Your task to perform on an android device: turn on airplane mode Image 0: 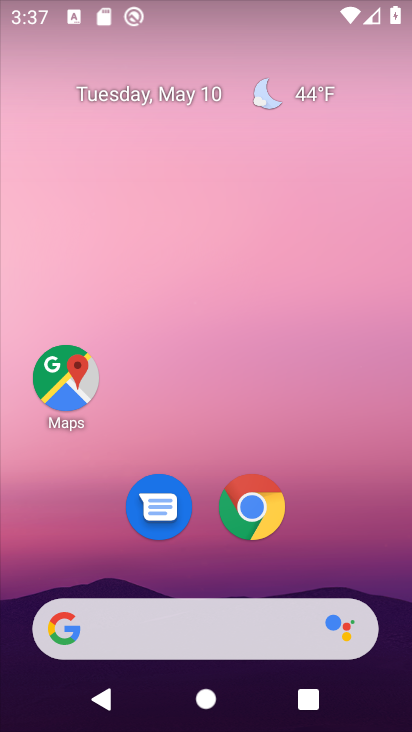
Step 0: drag from (207, 560) to (233, 148)
Your task to perform on an android device: turn on airplane mode Image 1: 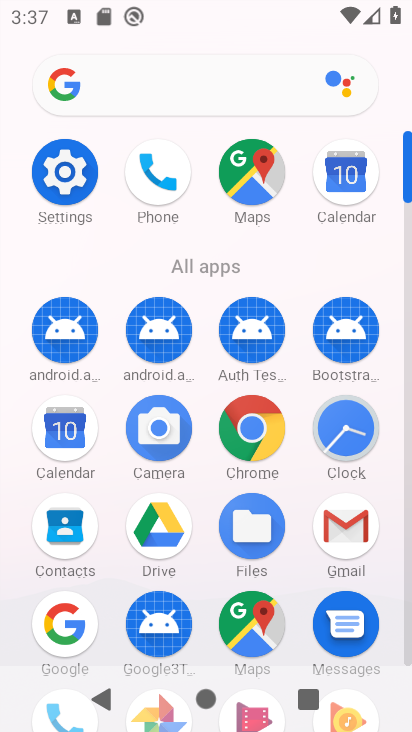
Step 1: drag from (110, 565) to (113, 230)
Your task to perform on an android device: turn on airplane mode Image 2: 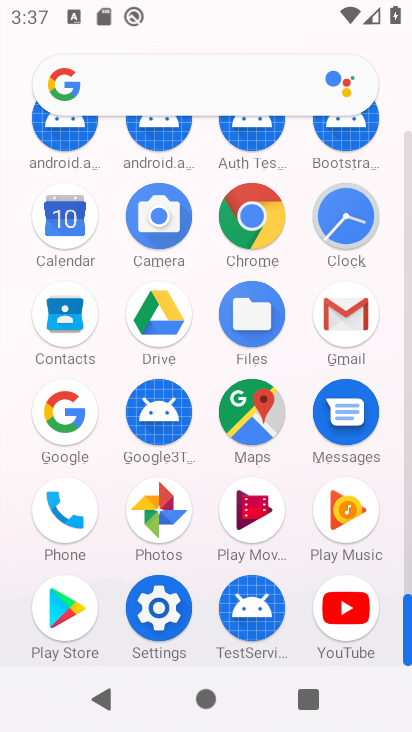
Step 2: click (158, 590)
Your task to perform on an android device: turn on airplane mode Image 3: 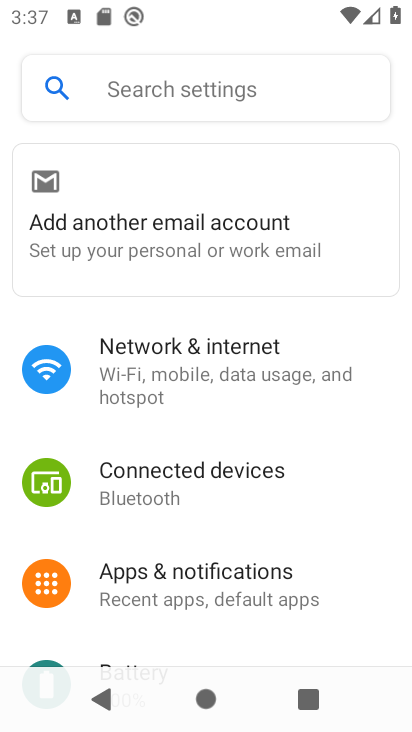
Step 3: drag from (190, 542) to (185, 330)
Your task to perform on an android device: turn on airplane mode Image 4: 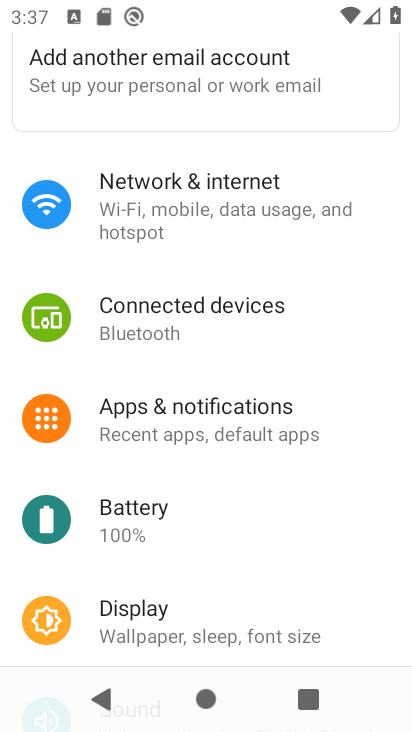
Step 4: drag from (196, 256) to (210, 508)
Your task to perform on an android device: turn on airplane mode Image 5: 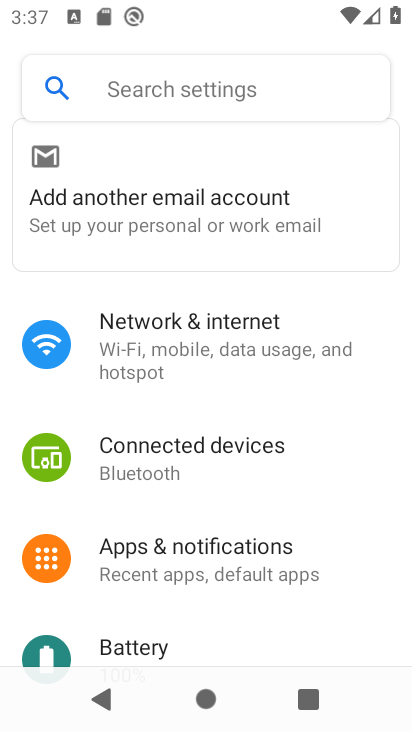
Step 5: click (195, 340)
Your task to perform on an android device: turn on airplane mode Image 6: 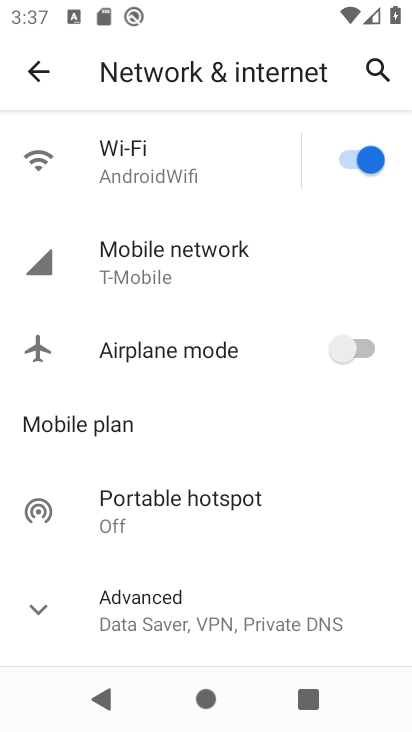
Step 6: click (345, 359)
Your task to perform on an android device: turn on airplane mode Image 7: 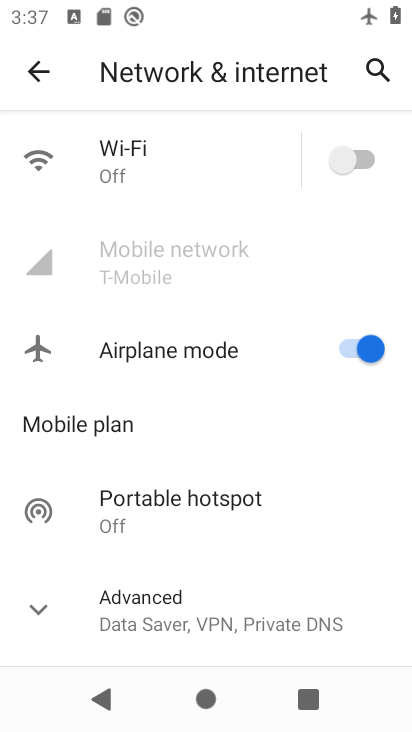
Step 7: task complete